Your task to perform on an android device: Search for razer naga on amazon, select the first entry, add it to the cart, then select checkout. Image 0: 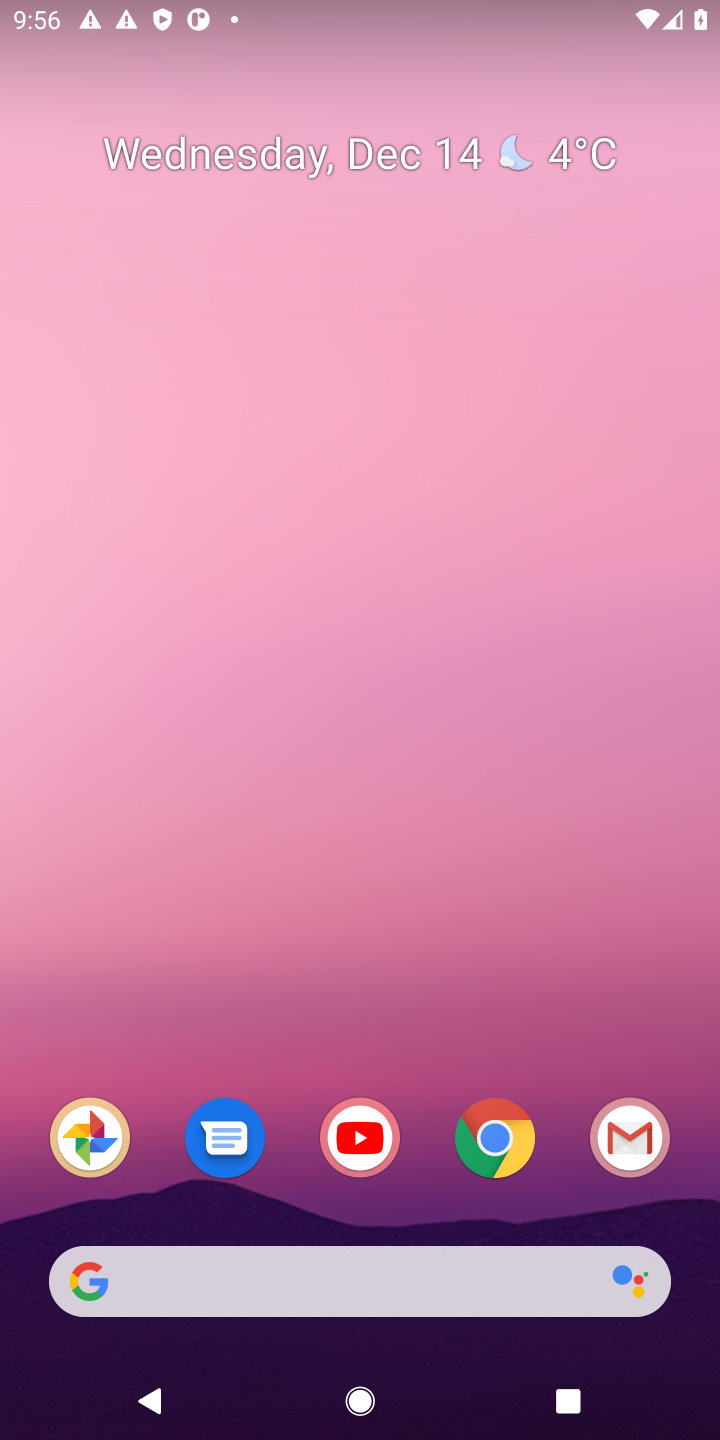
Step 0: click (503, 1137)
Your task to perform on an android device: Search for razer naga on amazon, select the first entry, add it to the cart, then select checkout. Image 1: 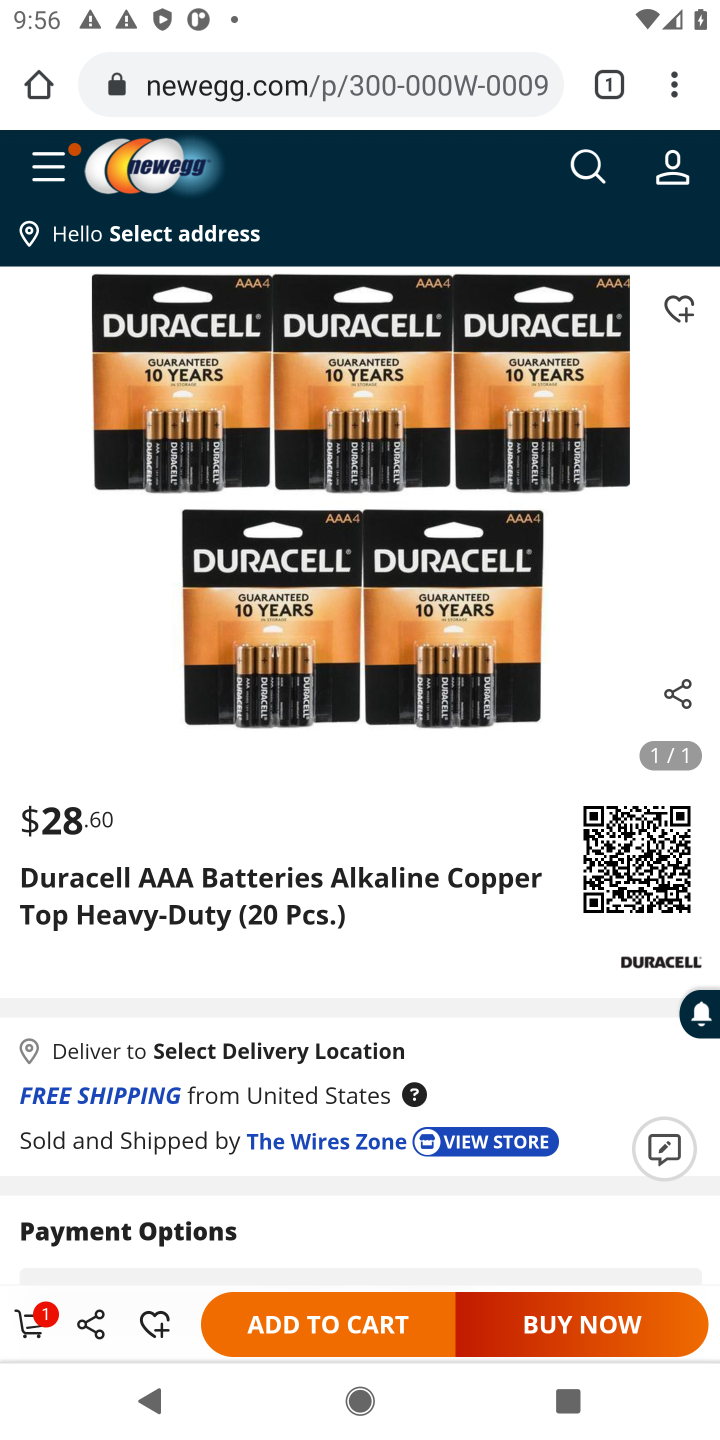
Step 1: click (319, 109)
Your task to perform on an android device: Search for razer naga on amazon, select the first entry, add it to the cart, then select checkout. Image 2: 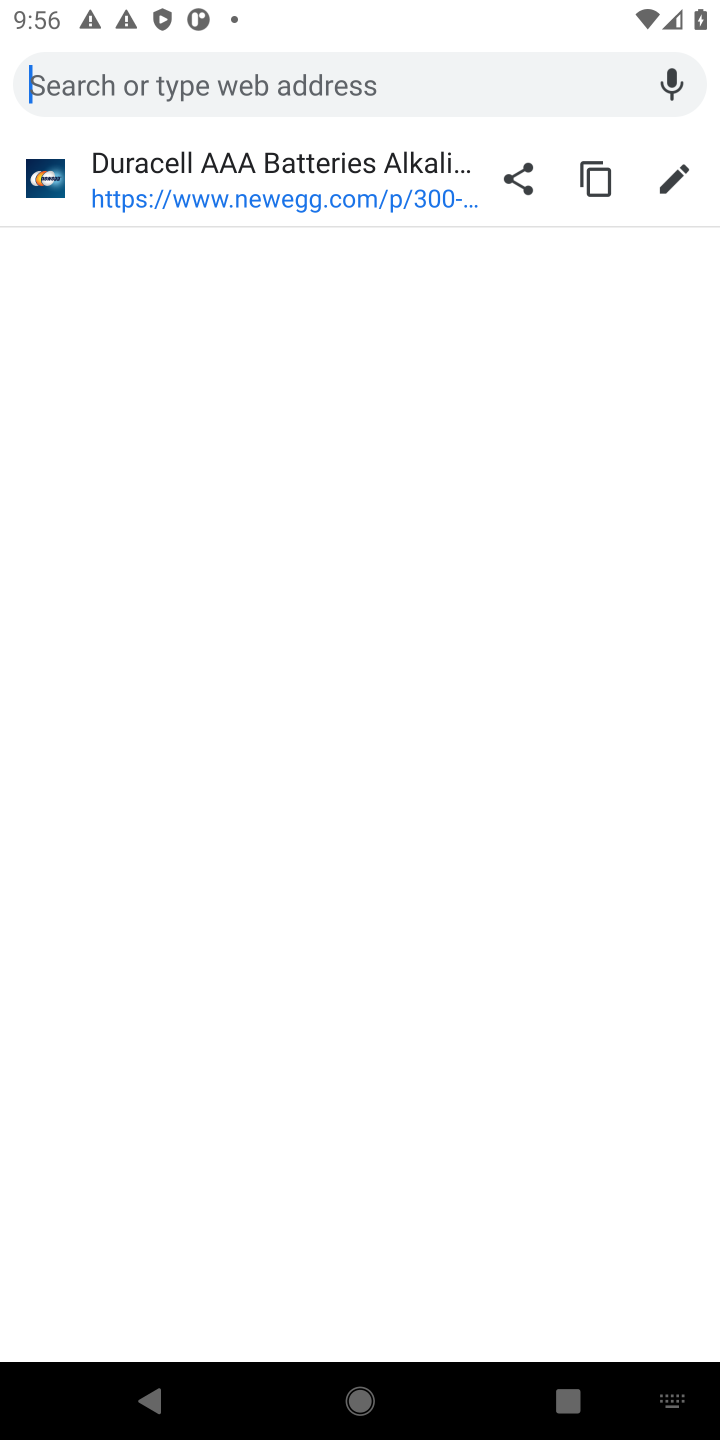
Step 2: type "amazon.com"
Your task to perform on an android device: Search for razer naga on amazon, select the first entry, add it to the cart, then select checkout. Image 3: 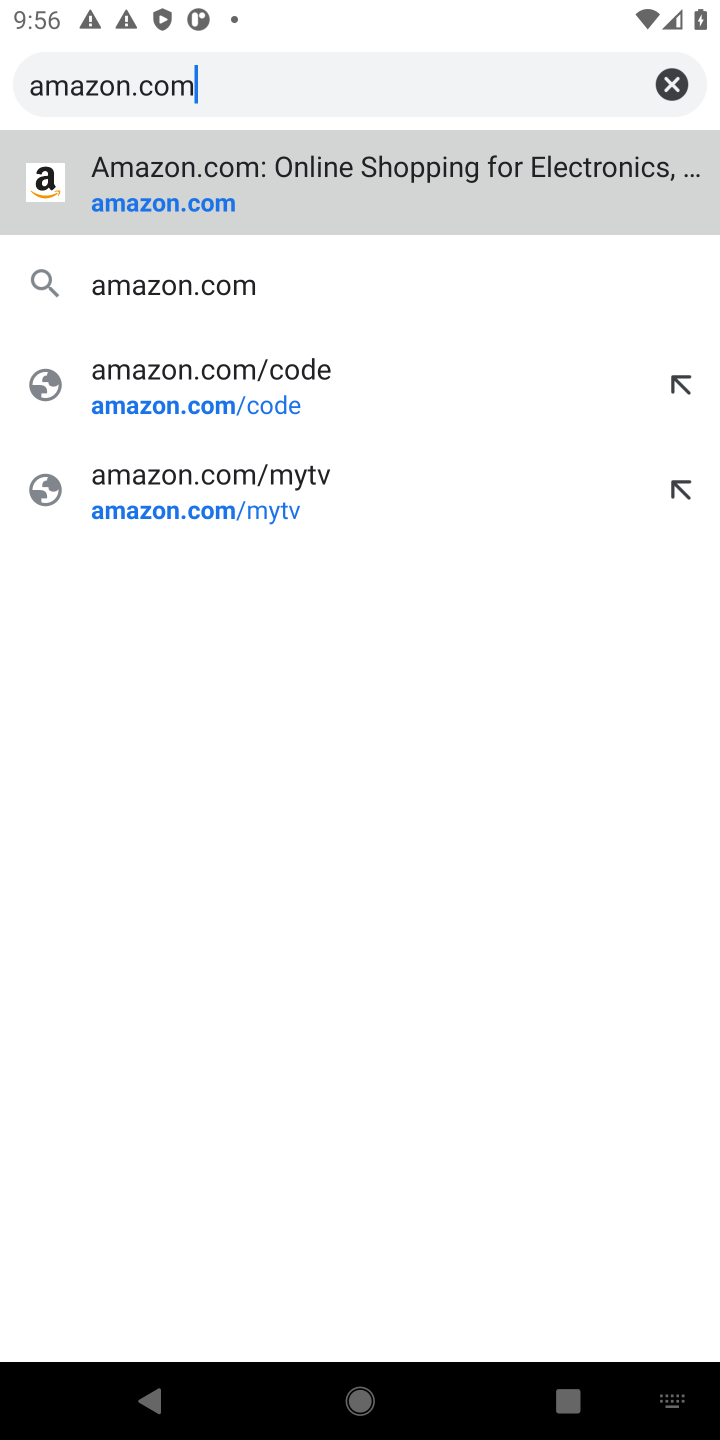
Step 3: click (184, 201)
Your task to perform on an android device: Search for razer naga on amazon, select the first entry, add it to the cart, then select checkout. Image 4: 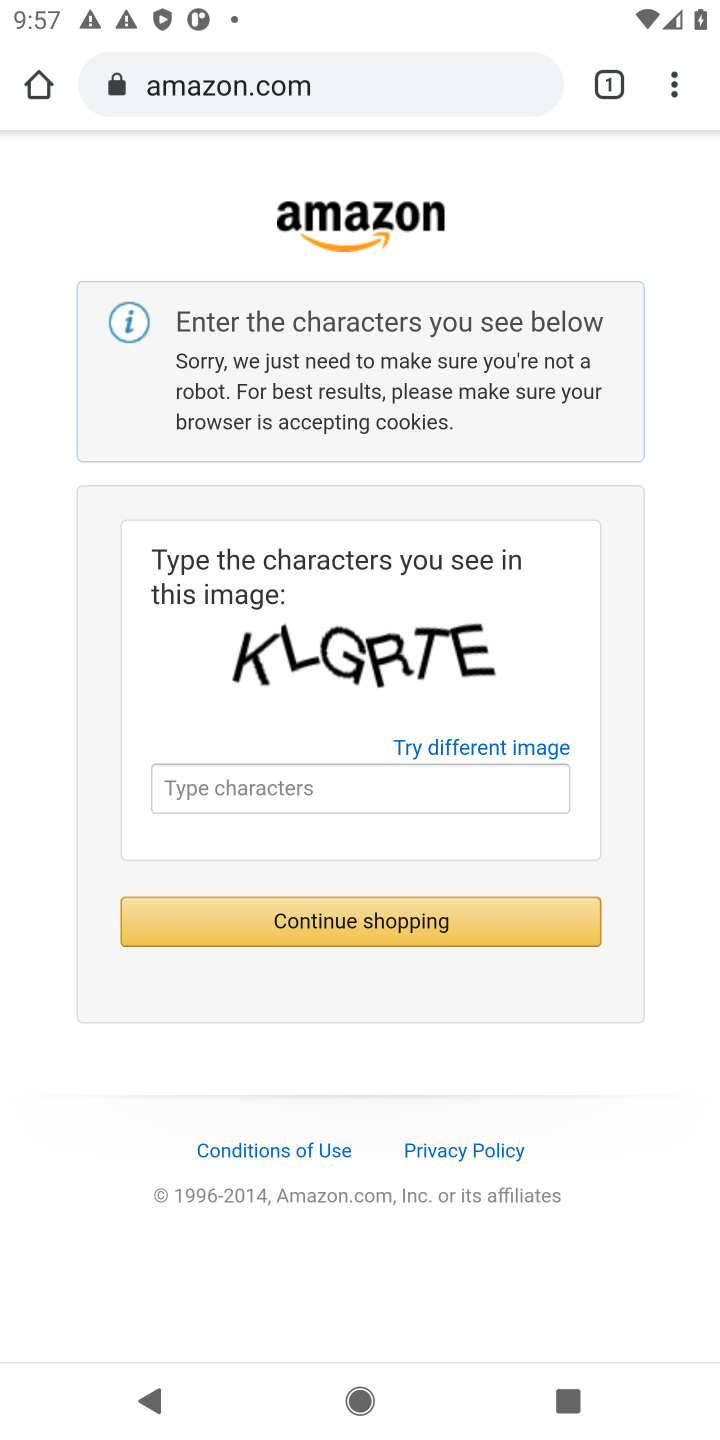
Step 4: click (192, 792)
Your task to perform on an android device: Search for razer naga on amazon, select the first entry, add it to the cart, then select checkout. Image 5: 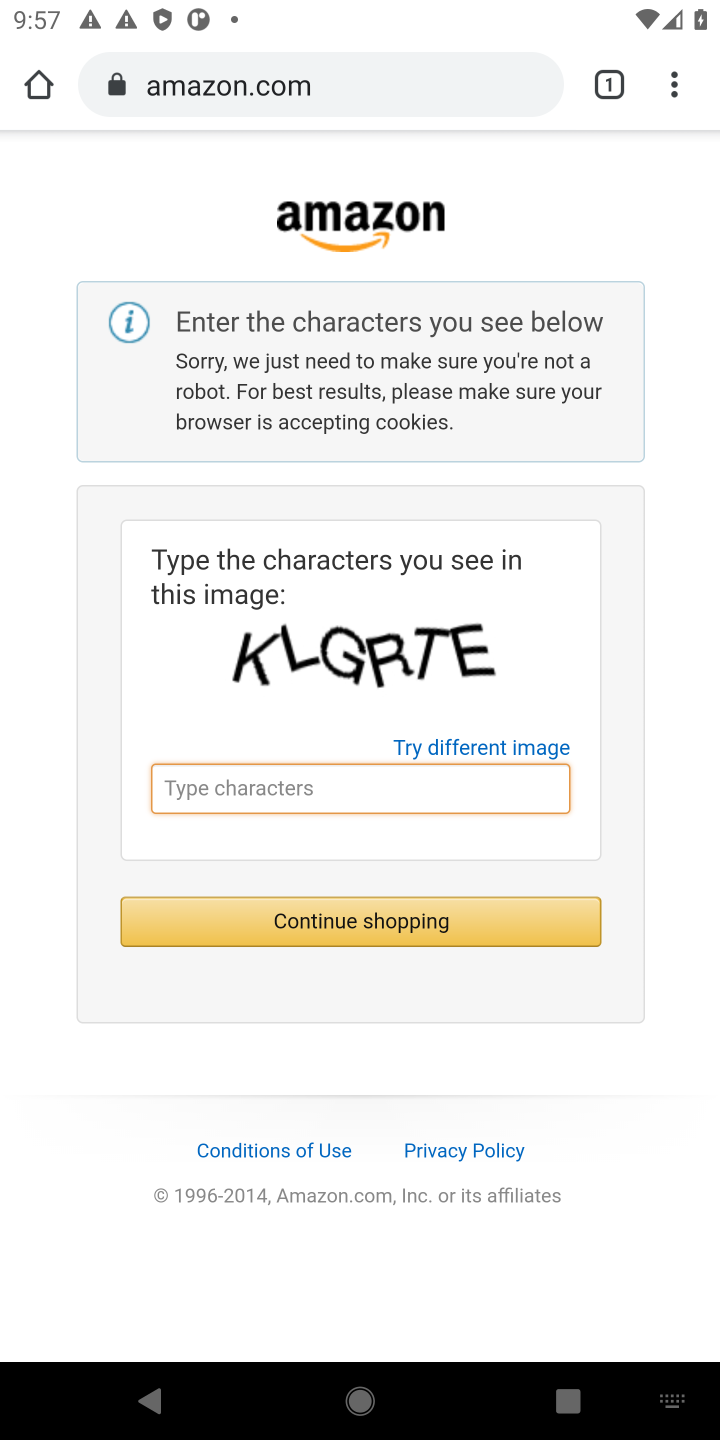
Step 5: type "KLGRTE"
Your task to perform on an android device: Search for razer naga on amazon, select the first entry, add it to the cart, then select checkout. Image 6: 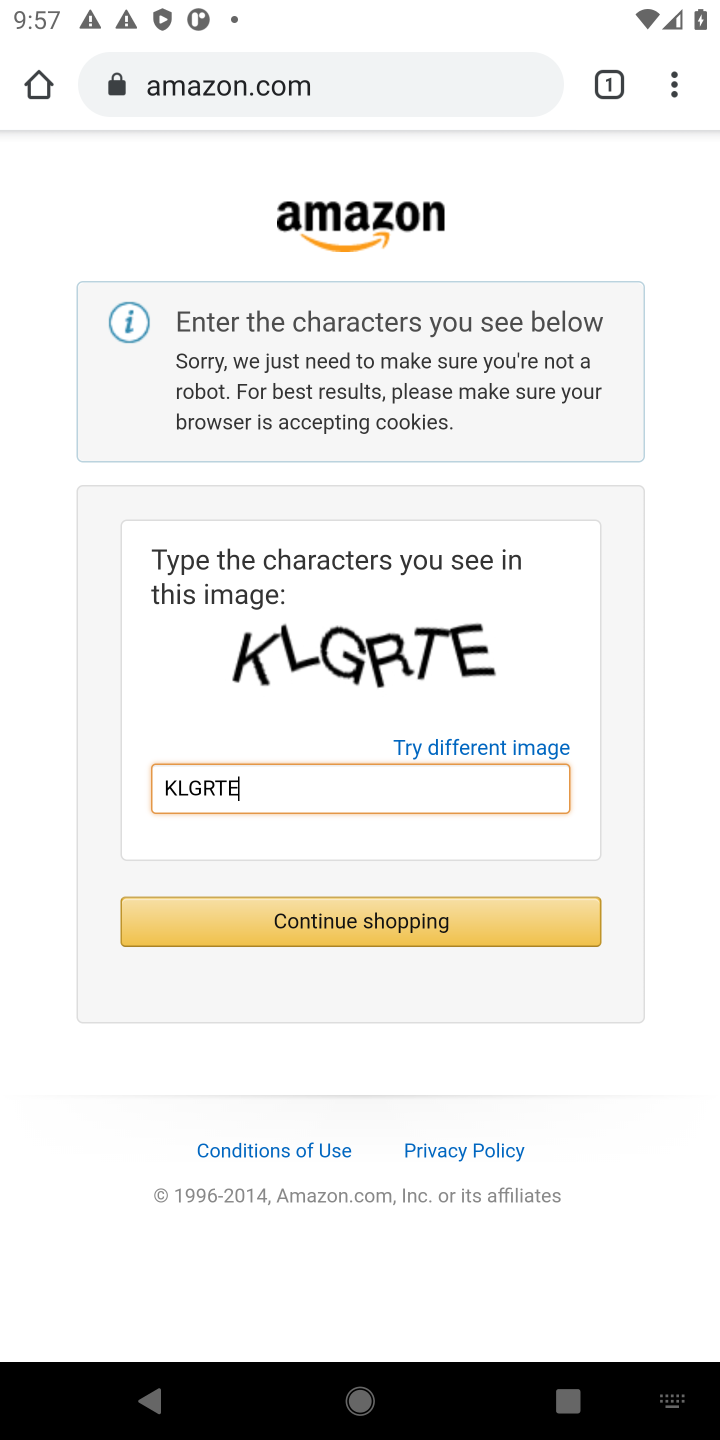
Step 6: click (359, 931)
Your task to perform on an android device: Search for razer naga on amazon, select the first entry, add it to the cart, then select checkout. Image 7: 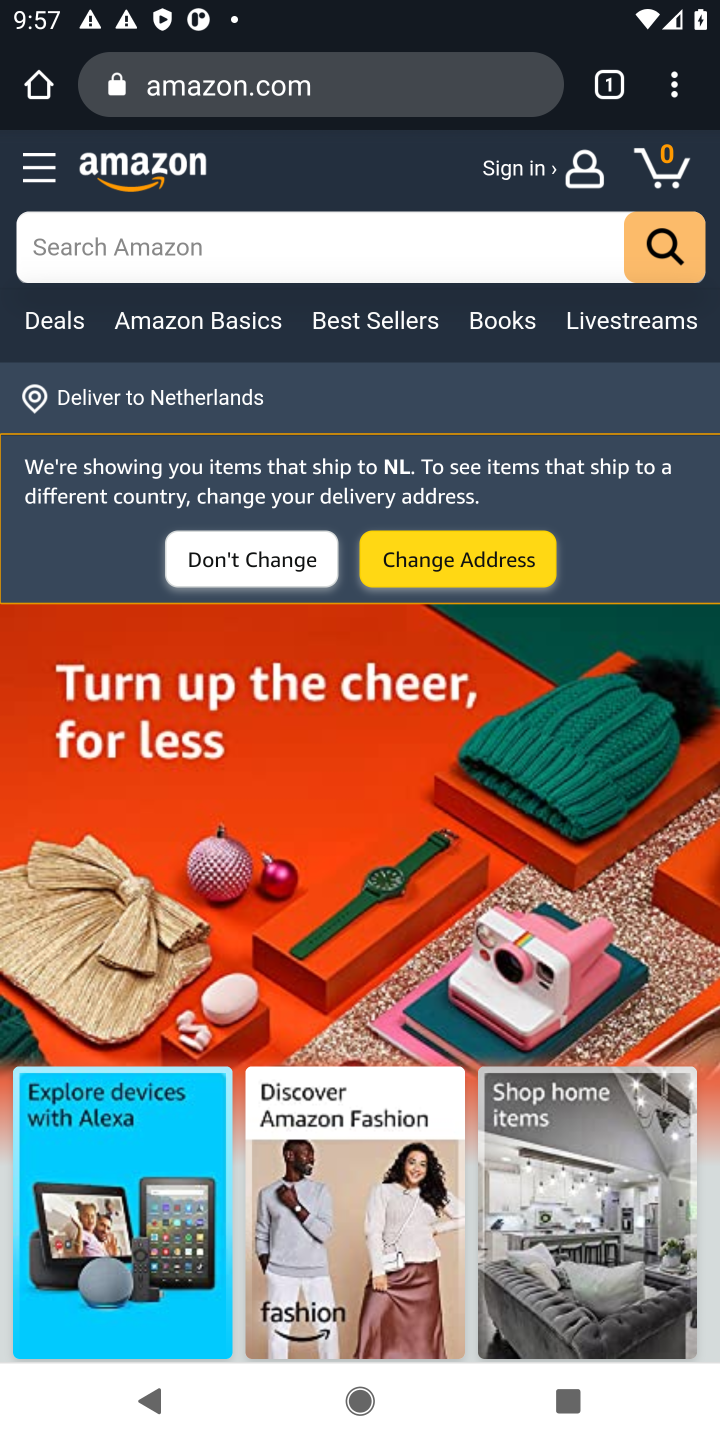
Step 7: click (222, 260)
Your task to perform on an android device: Search for razer naga on amazon, select the first entry, add it to the cart, then select checkout. Image 8: 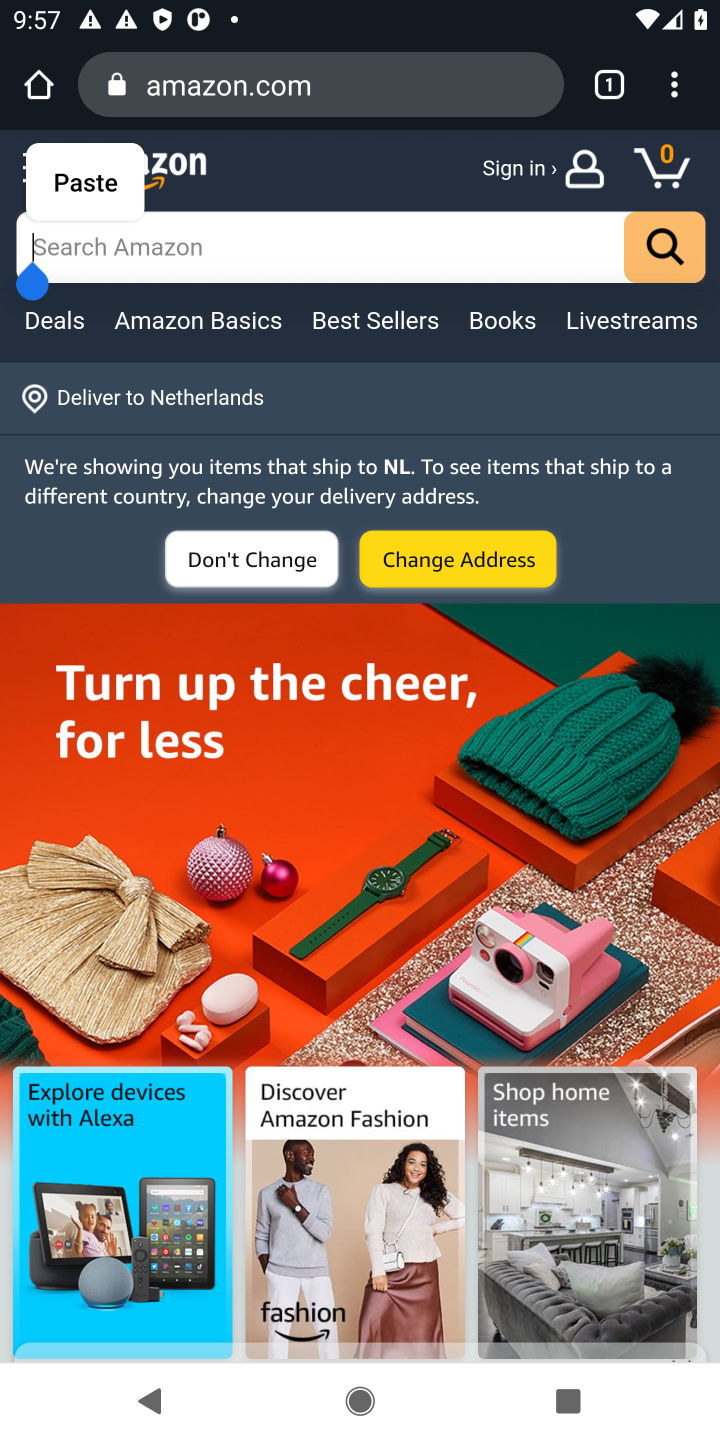
Step 8: type "razer naga"
Your task to perform on an android device: Search for razer naga on amazon, select the first entry, add it to the cart, then select checkout. Image 9: 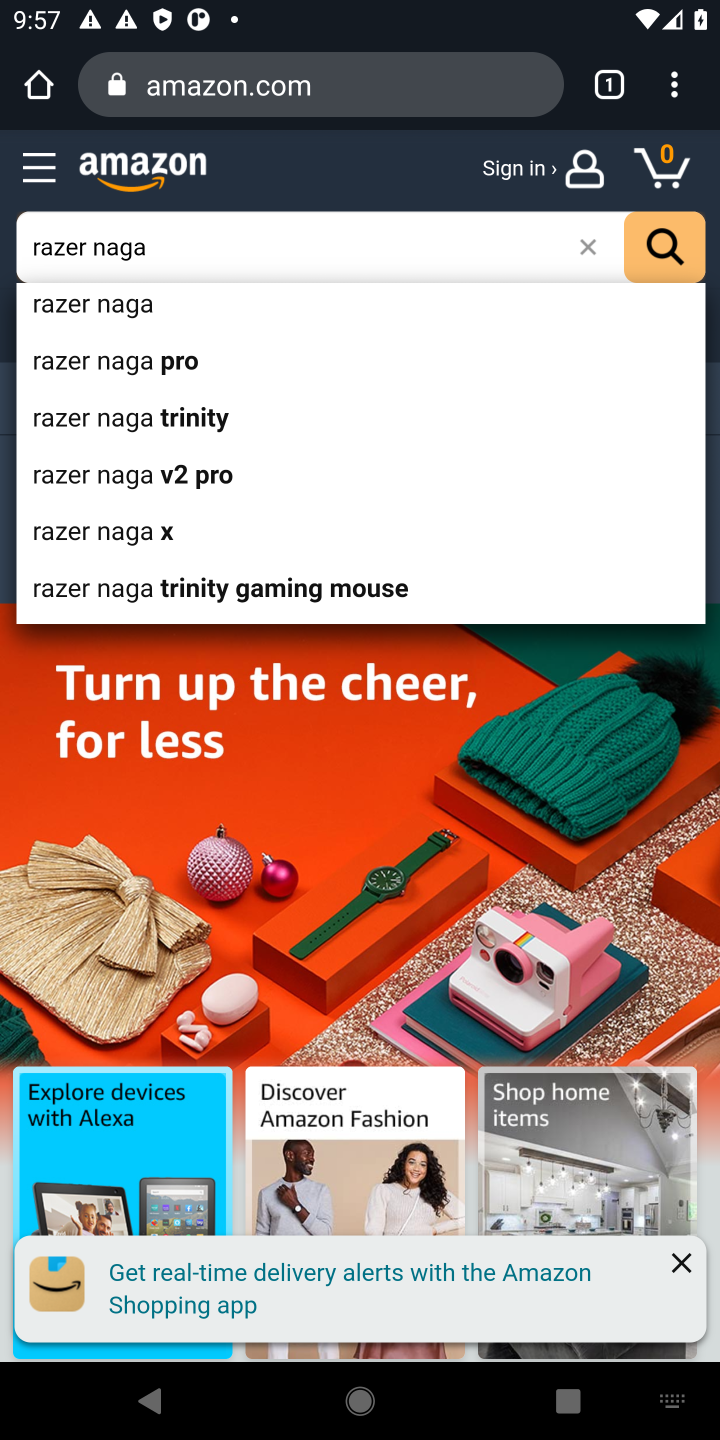
Step 9: click (94, 309)
Your task to perform on an android device: Search for razer naga on amazon, select the first entry, add it to the cart, then select checkout. Image 10: 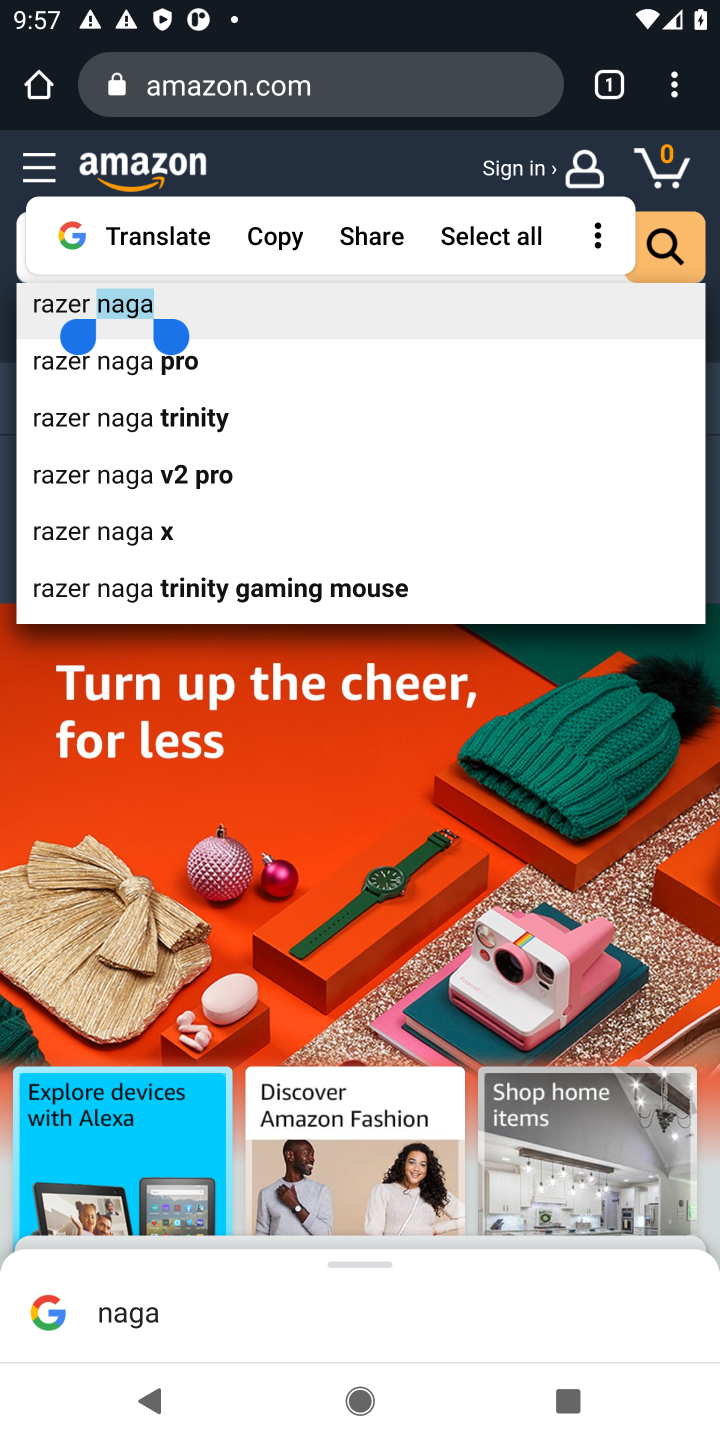
Step 10: click (56, 317)
Your task to perform on an android device: Search for razer naga on amazon, select the first entry, add it to the cart, then select checkout. Image 11: 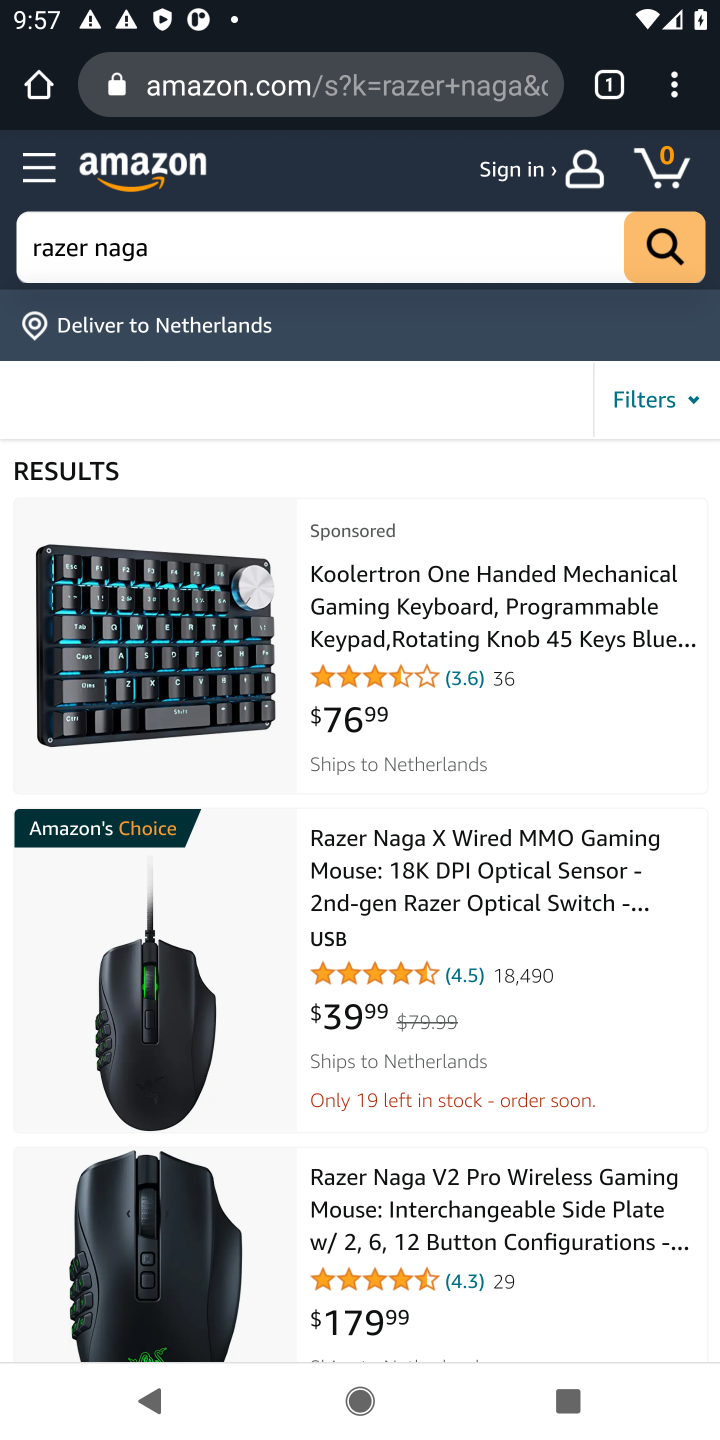
Step 11: task complete